Your task to perform on an android device: change the clock display to analog Image 0: 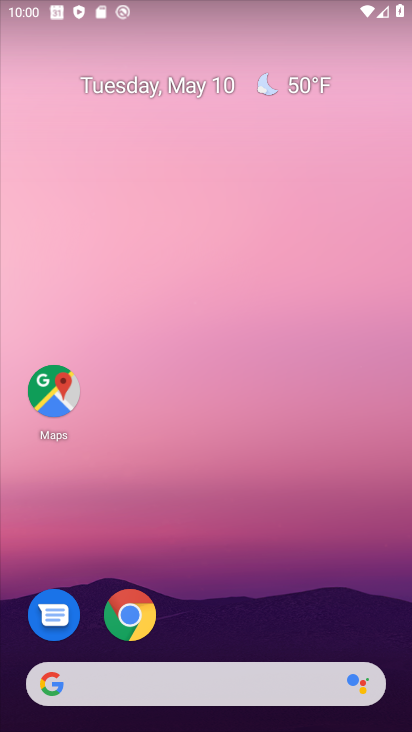
Step 0: drag from (220, 642) to (240, 111)
Your task to perform on an android device: change the clock display to analog Image 1: 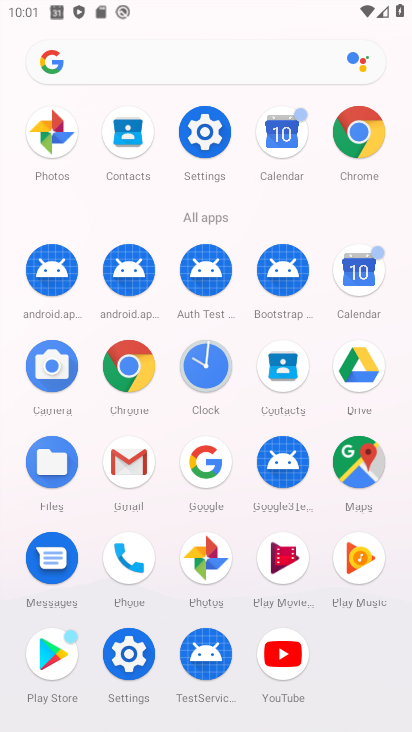
Step 1: click (204, 358)
Your task to perform on an android device: change the clock display to analog Image 2: 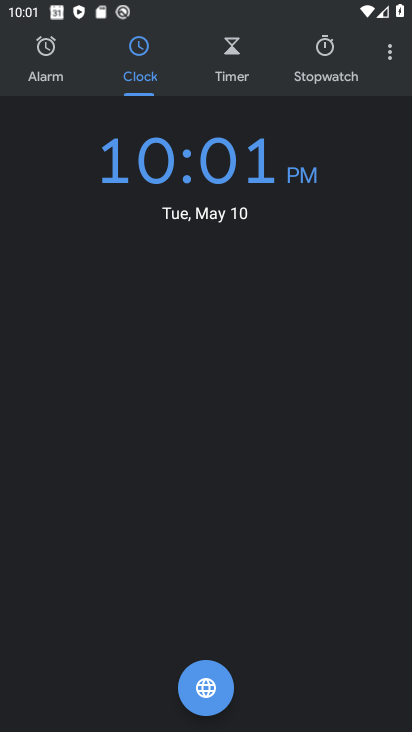
Step 2: click (394, 51)
Your task to perform on an android device: change the clock display to analog Image 3: 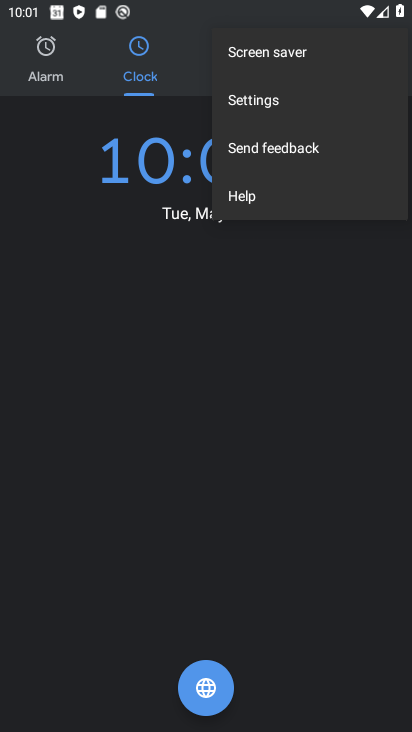
Step 3: click (287, 105)
Your task to perform on an android device: change the clock display to analog Image 4: 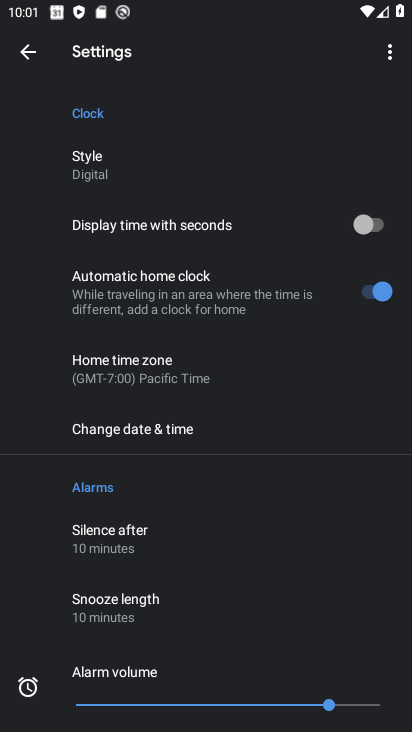
Step 4: click (126, 167)
Your task to perform on an android device: change the clock display to analog Image 5: 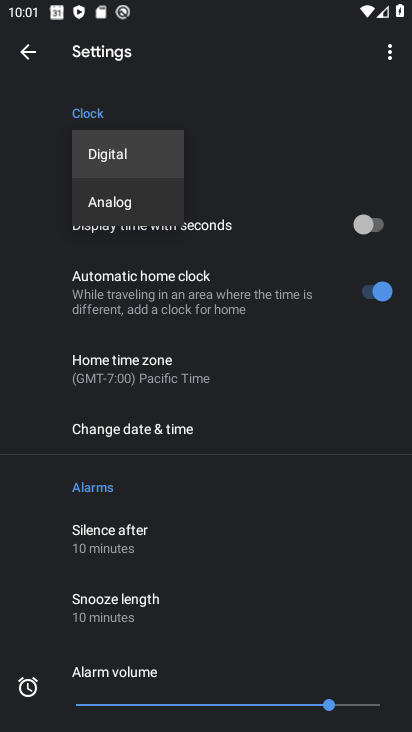
Step 5: click (136, 198)
Your task to perform on an android device: change the clock display to analog Image 6: 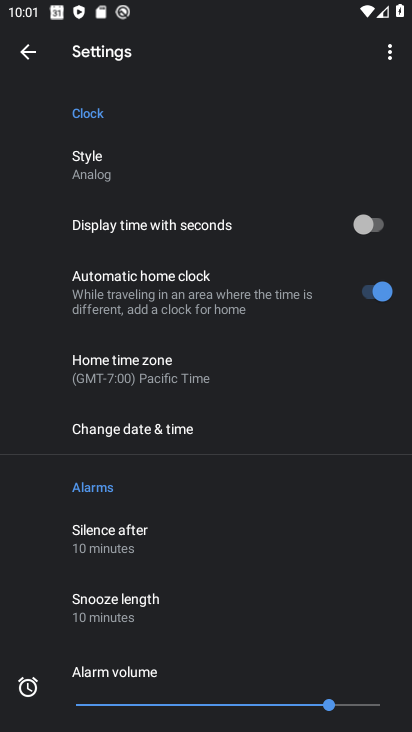
Step 6: task complete